Your task to perform on an android device: turn off notifications in google photos Image 0: 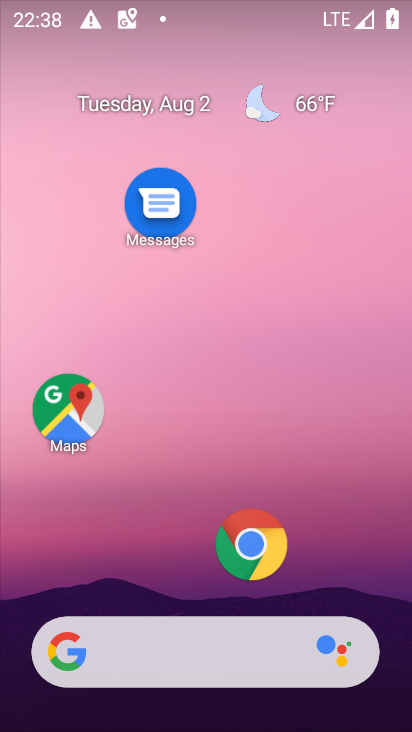
Step 0: drag from (170, 567) to (186, 175)
Your task to perform on an android device: turn off notifications in google photos Image 1: 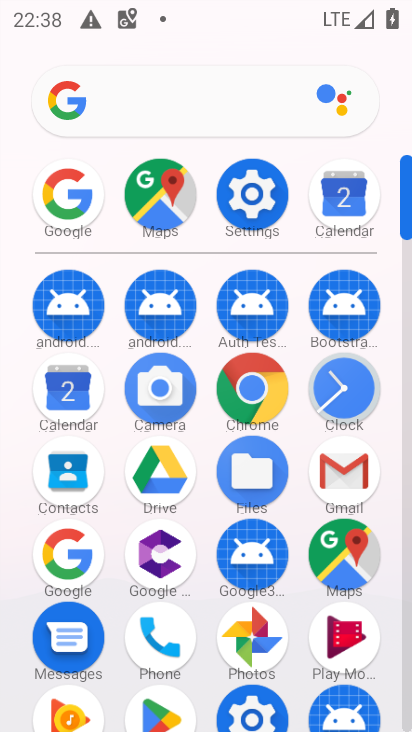
Step 1: click (242, 621)
Your task to perform on an android device: turn off notifications in google photos Image 2: 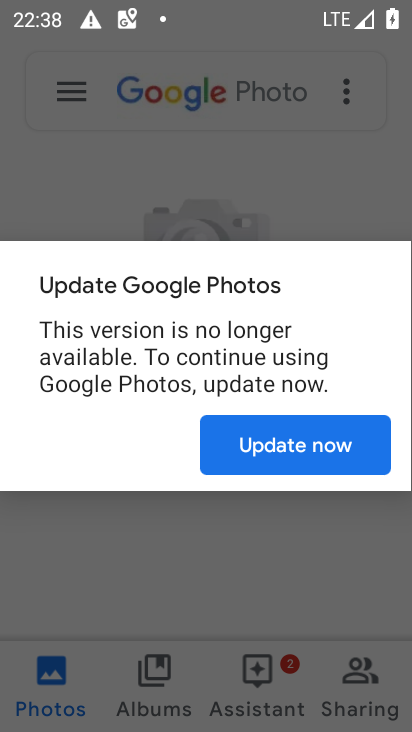
Step 2: click (362, 442)
Your task to perform on an android device: turn off notifications in google photos Image 3: 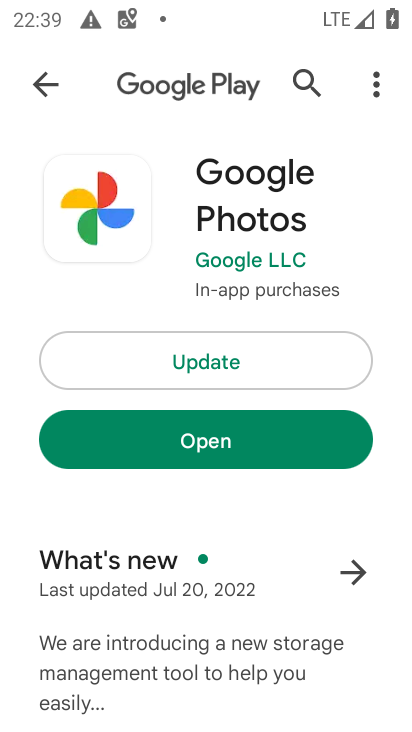
Step 3: click (298, 432)
Your task to perform on an android device: turn off notifications in google photos Image 4: 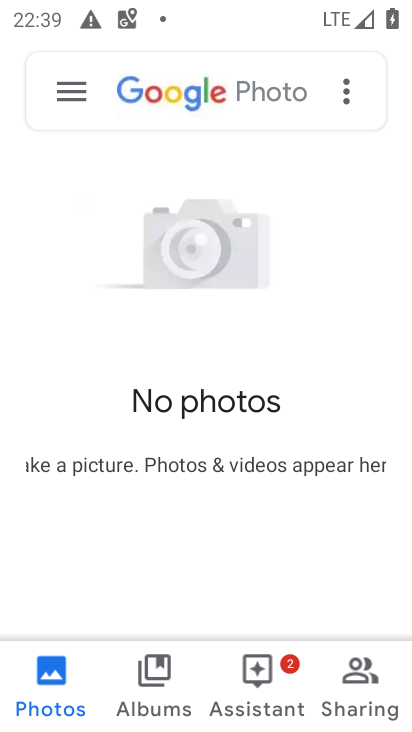
Step 4: click (76, 106)
Your task to perform on an android device: turn off notifications in google photos Image 5: 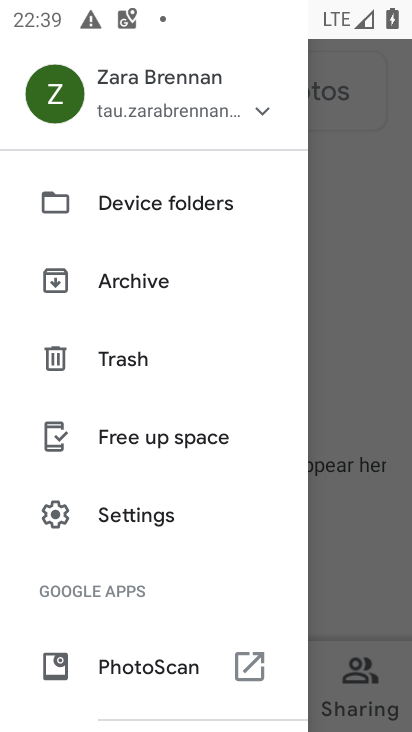
Step 5: click (132, 497)
Your task to perform on an android device: turn off notifications in google photos Image 6: 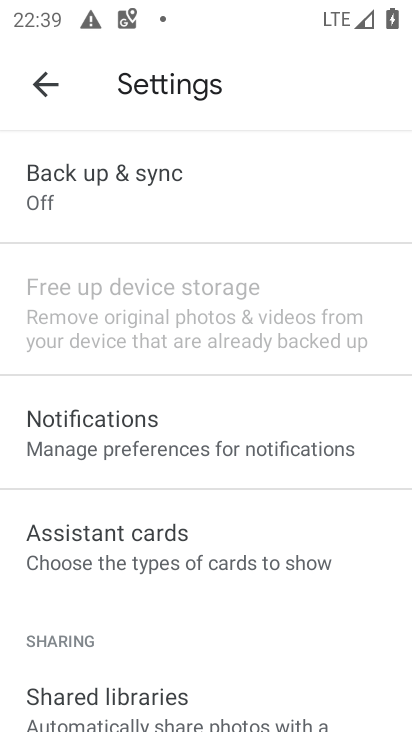
Step 6: click (140, 435)
Your task to perform on an android device: turn off notifications in google photos Image 7: 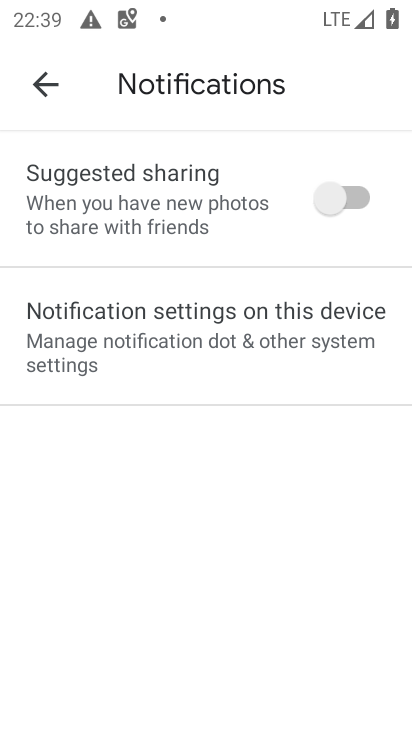
Step 7: click (161, 344)
Your task to perform on an android device: turn off notifications in google photos Image 8: 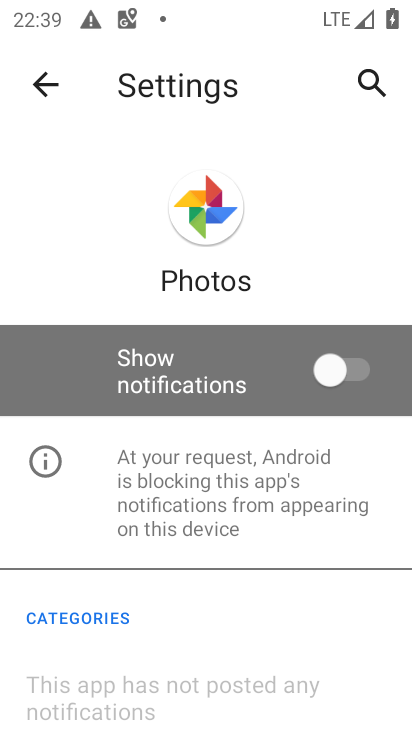
Step 8: task complete